Your task to perform on an android device: toggle location history Image 0: 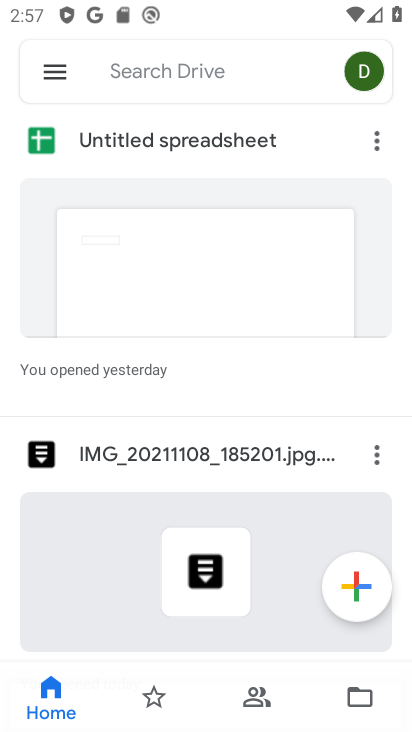
Step 0: press home button
Your task to perform on an android device: toggle location history Image 1: 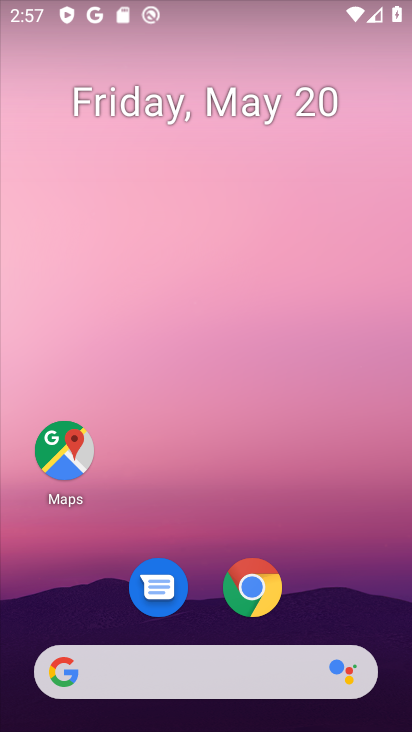
Step 1: drag from (192, 682) to (289, 269)
Your task to perform on an android device: toggle location history Image 2: 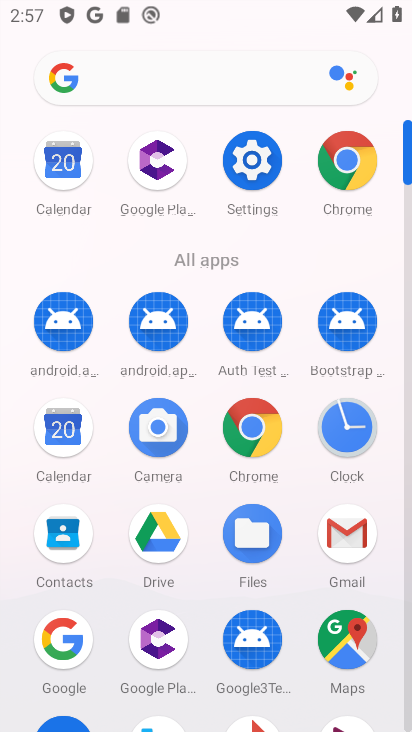
Step 2: click (350, 646)
Your task to perform on an android device: toggle location history Image 3: 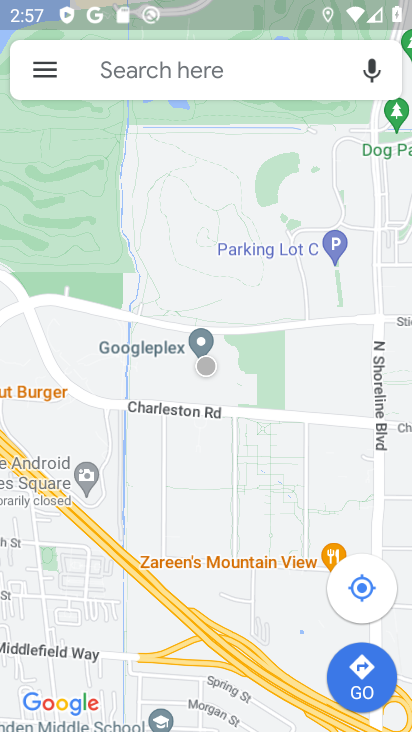
Step 3: click (44, 69)
Your task to perform on an android device: toggle location history Image 4: 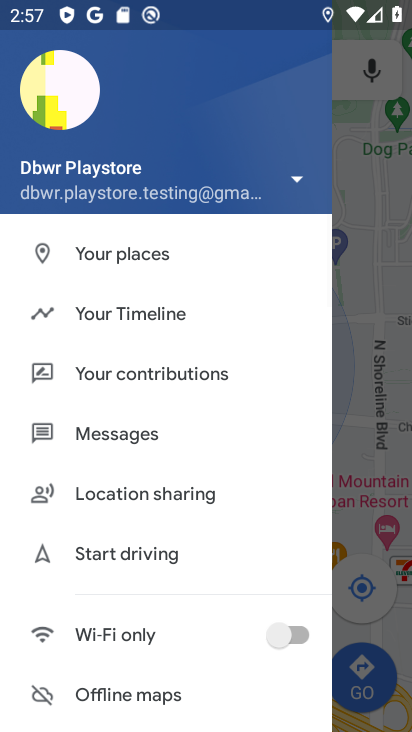
Step 4: click (162, 311)
Your task to perform on an android device: toggle location history Image 5: 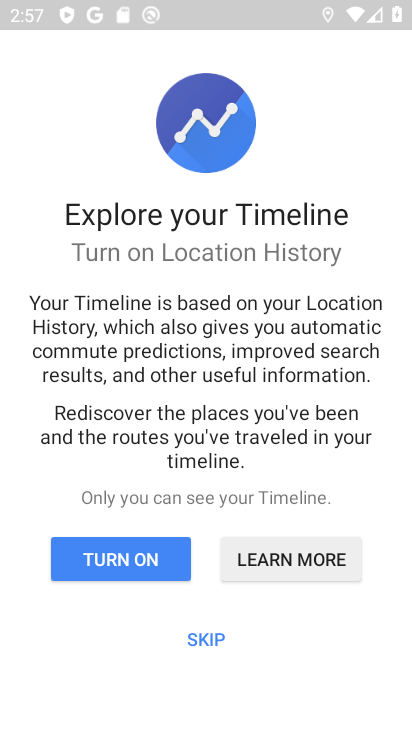
Step 5: click (191, 640)
Your task to perform on an android device: toggle location history Image 6: 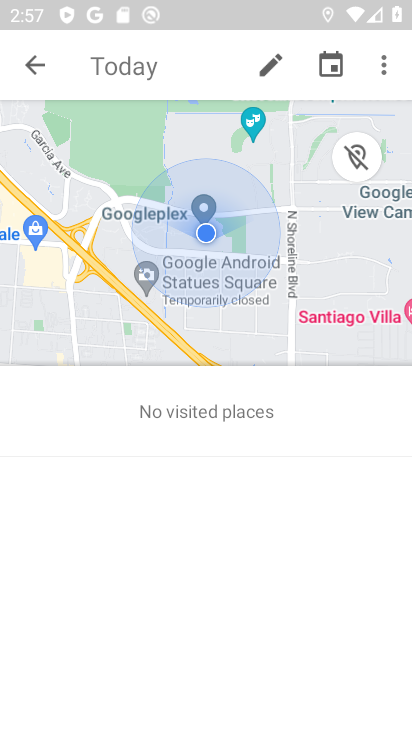
Step 6: click (384, 65)
Your task to perform on an android device: toggle location history Image 7: 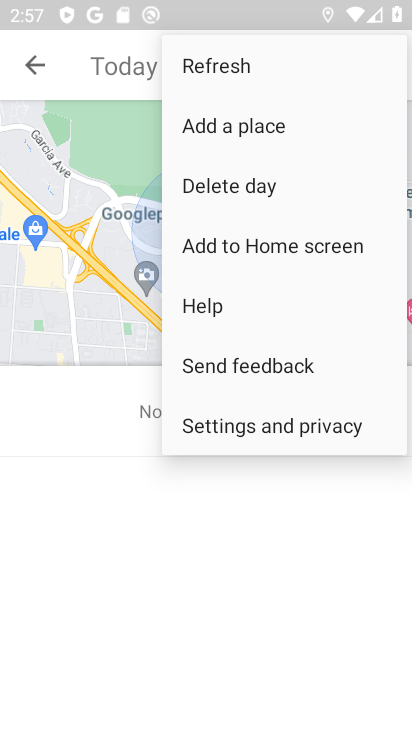
Step 7: click (248, 425)
Your task to perform on an android device: toggle location history Image 8: 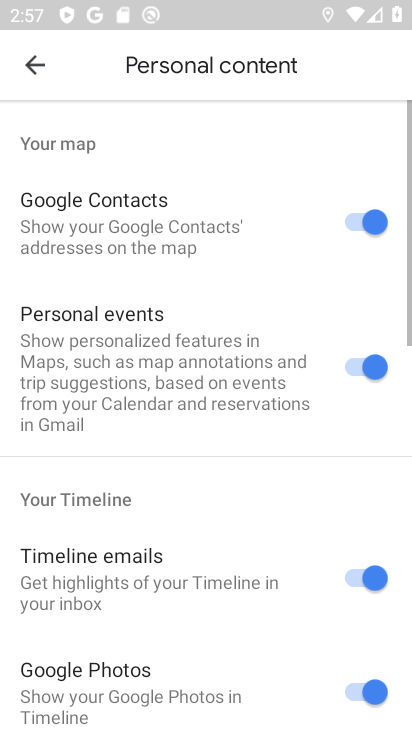
Step 8: drag from (161, 661) to (299, 96)
Your task to perform on an android device: toggle location history Image 9: 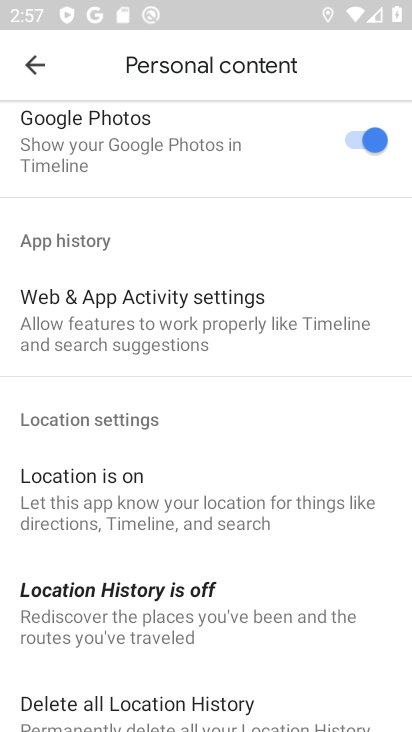
Step 9: click (160, 599)
Your task to perform on an android device: toggle location history Image 10: 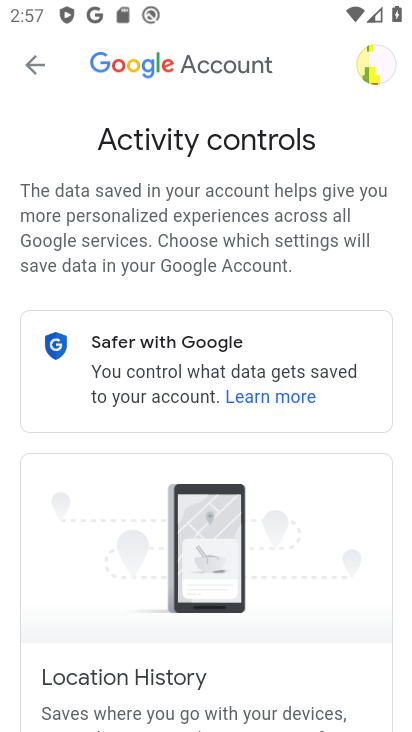
Step 10: drag from (263, 654) to (323, 232)
Your task to perform on an android device: toggle location history Image 11: 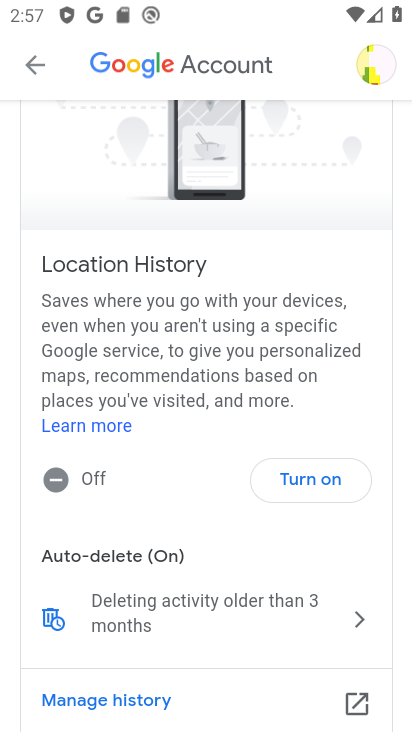
Step 11: click (311, 484)
Your task to perform on an android device: toggle location history Image 12: 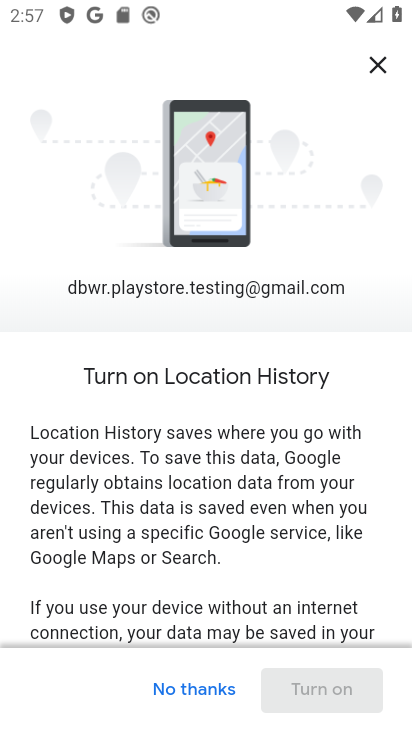
Step 12: drag from (240, 616) to (308, 123)
Your task to perform on an android device: toggle location history Image 13: 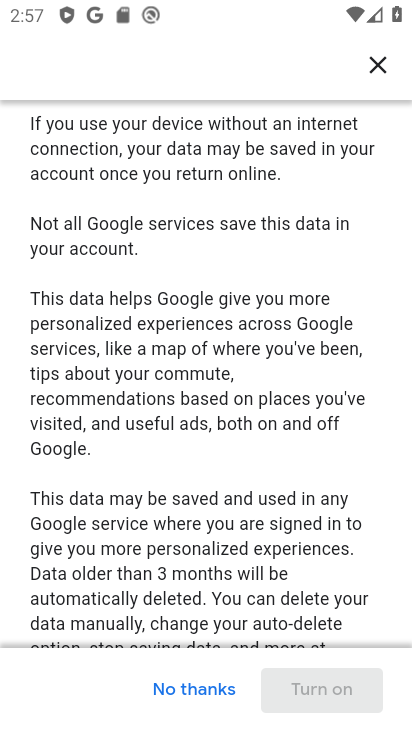
Step 13: drag from (218, 617) to (337, 191)
Your task to perform on an android device: toggle location history Image 14: 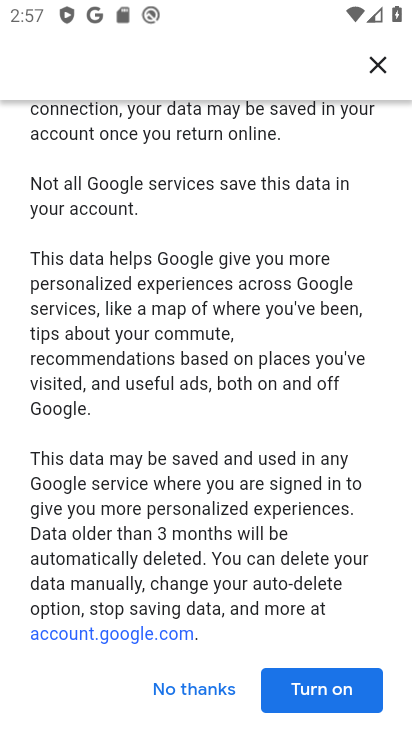
Step 14: click (320, 694)
Your task to perform on an android device: toggle location history Image 15: 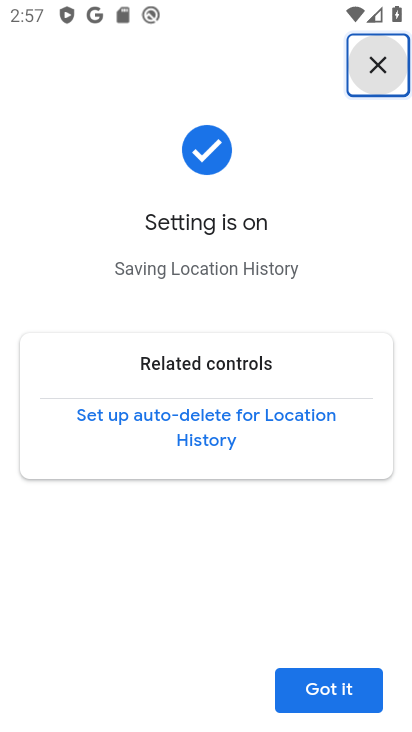
Step 15: click (327, 690)
Your task to perform on an android device: toggle location history Image 16: 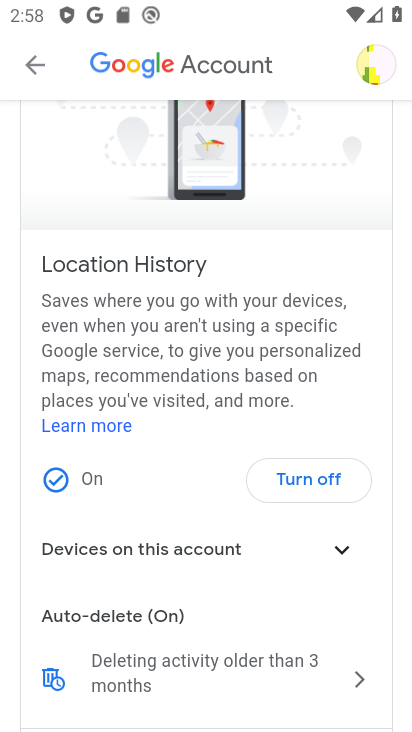
Step 16: task complete